Your task to perform on an android device: move a message to another label in the gmail app Image 0: 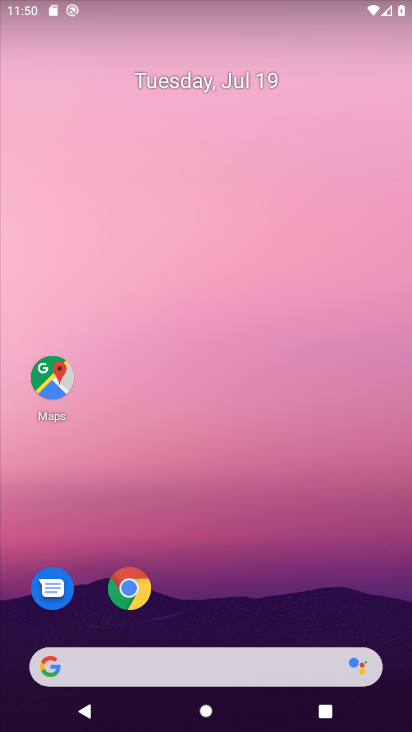
Step 0: drag from (192, 506) to (281, 17)
Your task to perform on an android device: move a message to another label in the gmail app Image 1: 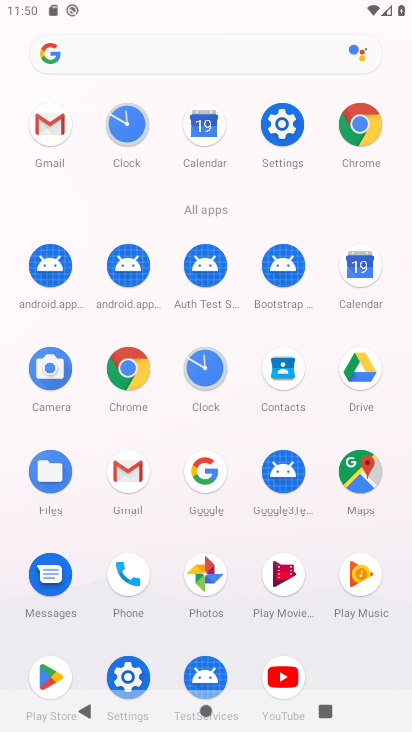
Step 1: click (141, 467)
Your task to perform on an android device: move a message to another label in the gmail app Image 2: 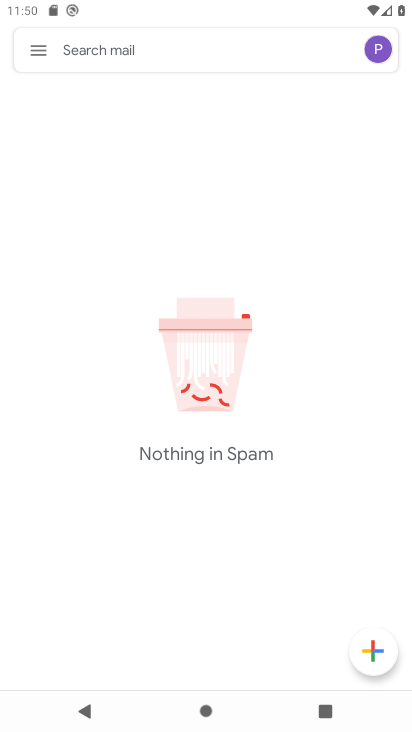
Step 2: click (38, 41)
Your task to perform on an android device: move a message to another label in the gmail app Image 3: 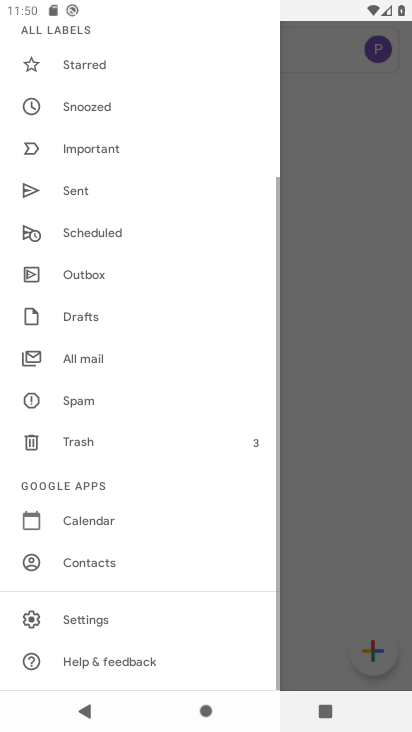
Step 3: drag from (95, 72) to (96, 724)
Your task to perform on an android device: move a message to another label in the gmail app Image 4: 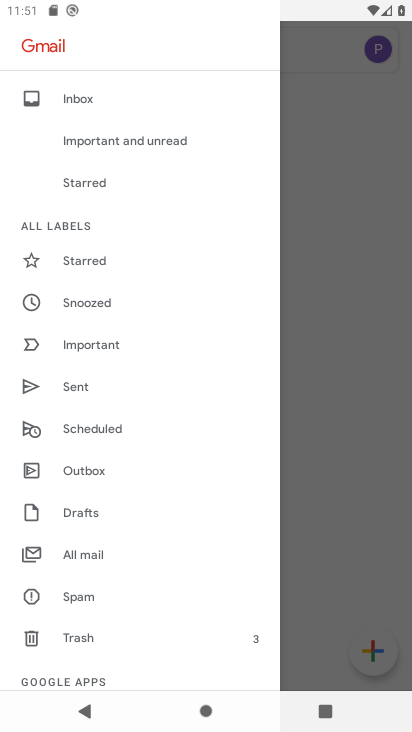
Step 4: click (90, 100)
Your task to perform on an android device: move a message to another label in the gmail app Image 5: 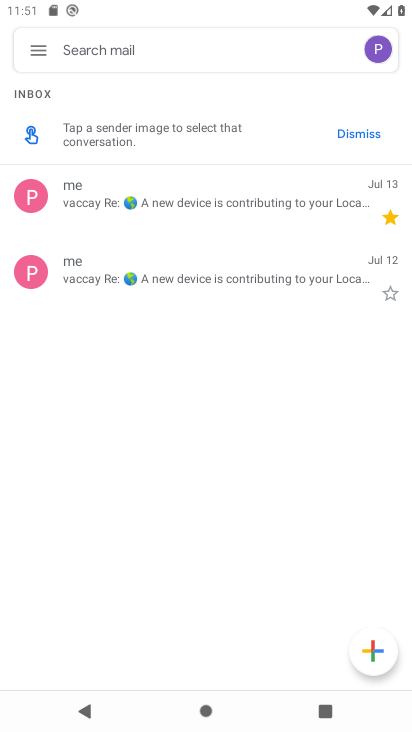
Step 5: click (24, 195)
Your task to perform on an android device: move a message to another label in the gmail app Image 6: 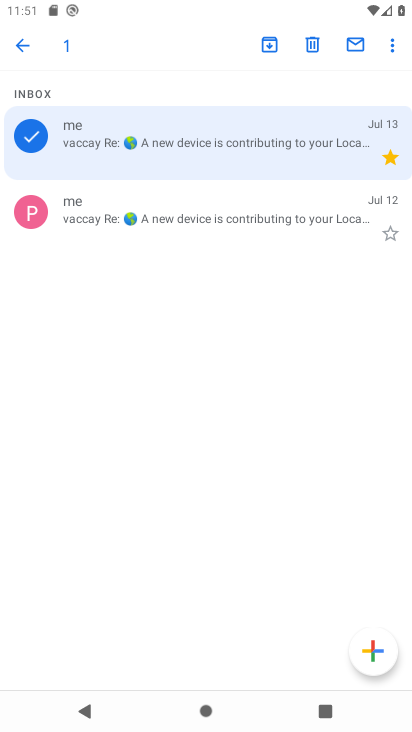
Step 6: click (385, 44)
Your task to perform on an android device: move a message to another label in the gmail app Image 7: 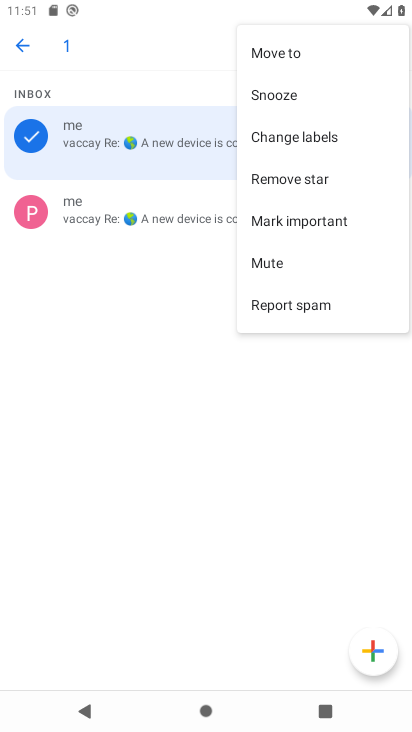
Step 7: click (291, 50)
Your task to perform on an android device: move a message to another label in the gmail app Image 8: 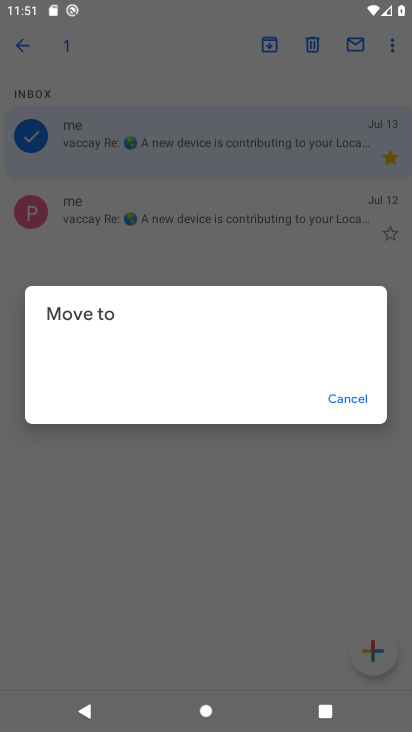
Step 8: click (363, 407)
Your task to perform on an android device: move a message to another label in the gmail app Image 9: 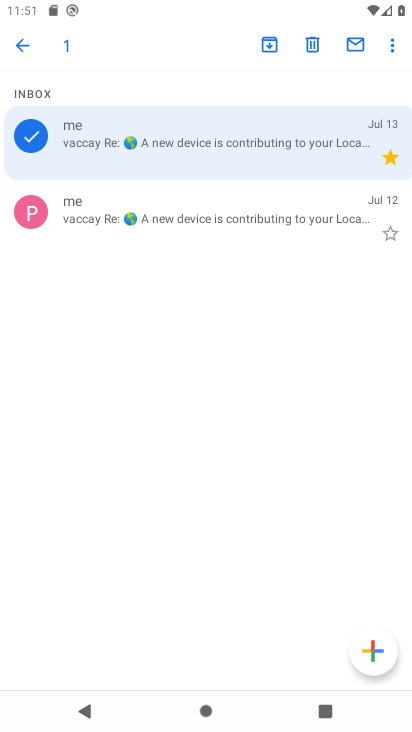
Step 9: click (389, 43)
Your task to perform on an android device: move a message to another label in the gmail app Image 10: 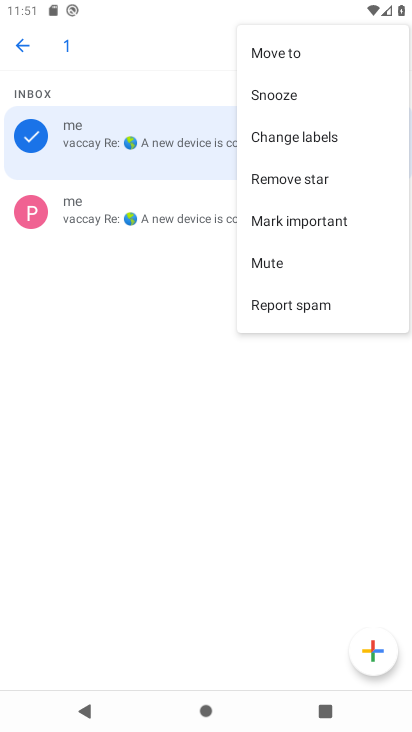
Step 10: click (325, 131)
Your task to perform on an android device: move a message to another label in the gmail app Image 11: 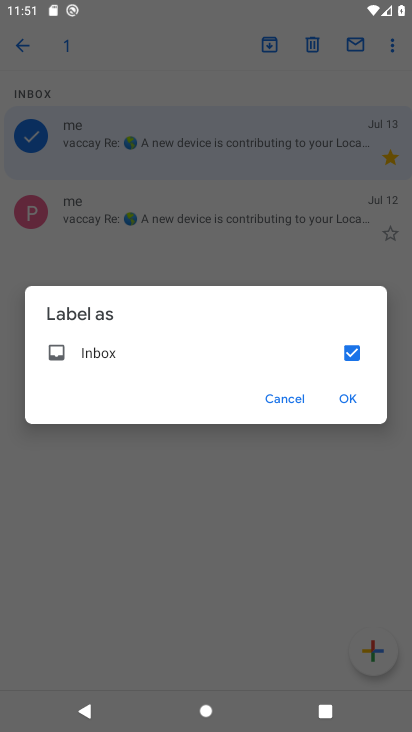
Step 11: click (354, 351)
Your task to perform on an android device: move a message to another label in the gmail app Image 12: 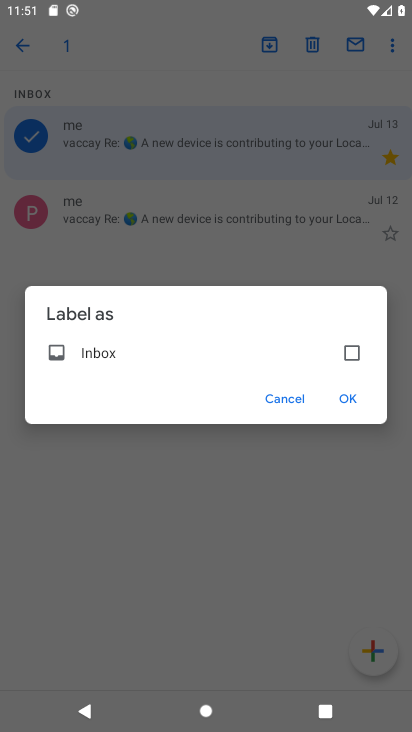
Step 12: click (345, 397)
Your task to perform on an android device: move a message to another label in the gmail app Image 13: 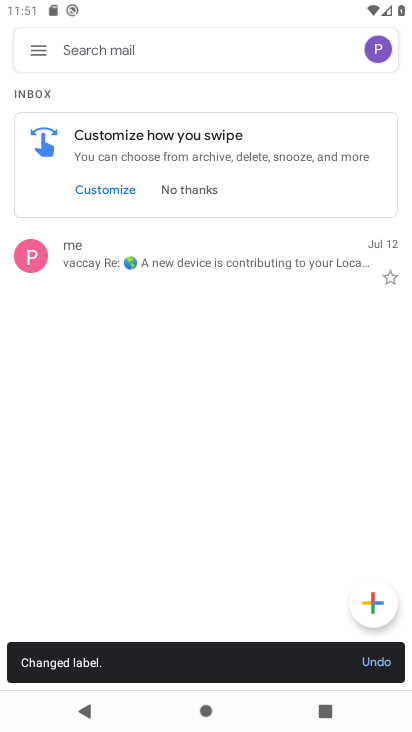
Step 13: task complete